Your task to perform on an android device: Empty the shopping cart on target. Add "dell xps" to the cart on target Image 0: 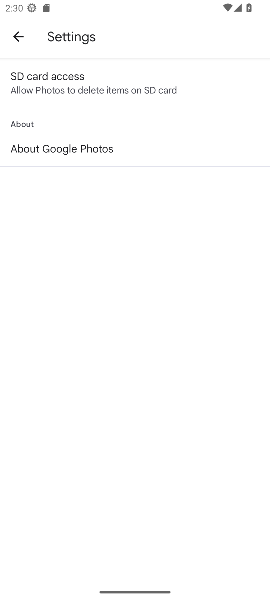
Step 0: click (9, 36)
Your task to perform on an android device: Empty the shopping cart on target. Add "dell xps" to the cart on target Image 1: 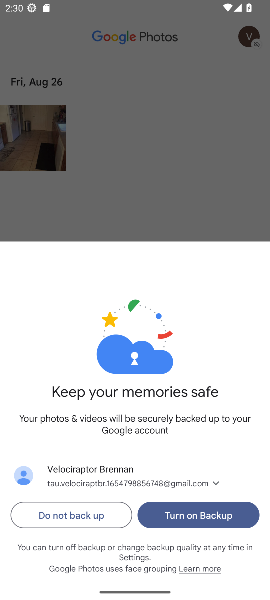
Step 1: click (81, 519)
Your task to perform on an android device: Empty the shopping cart on target. Add "dell xps" to the cart on target Image 2: 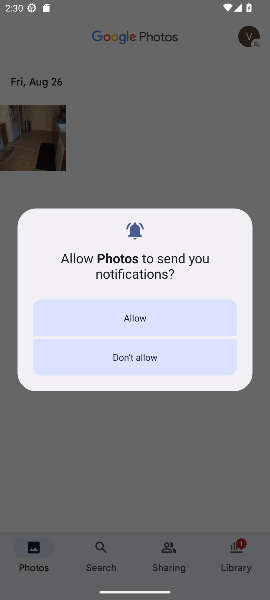
Step 2: press home button
Your task to perform on an android device: Empty the shopping cart on target. Add "dell xps" to the cart on target Image 3: 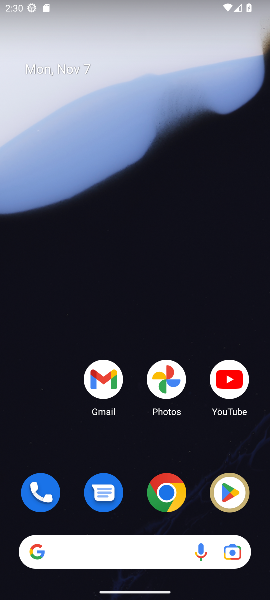
Step 3: click (171, 497)
Your task to perform on an android device: Empty the shopping cart on target. Add "dell xps" to the cart on target Image 4: 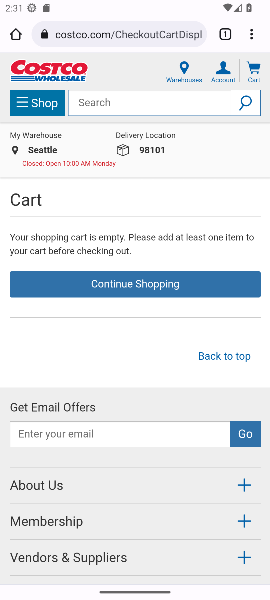
Step 4: click (140, 33)
Your task to perform on an android device: Empty the shopping cart on target. Add "dell xps" to the cart on target Image 5: 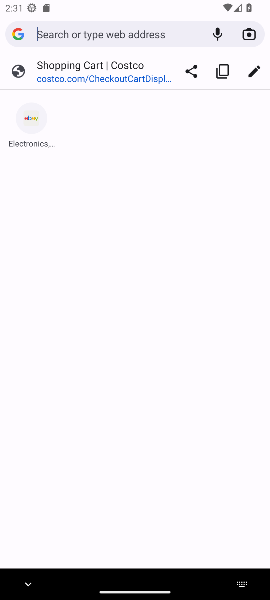
Step 5: type "target"
Your task to perform on an android device: Empty the shopping cart on target. Add "dell xps" to the cart on target Image 6: 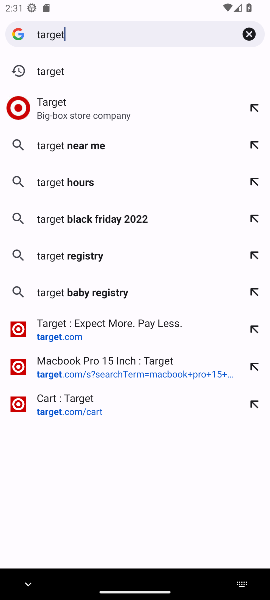
Step 6: click (86, 115)
Your task to perform on an android device: Empty the shopping cart on target. Add "dell xps" to the cart on target Image 7: 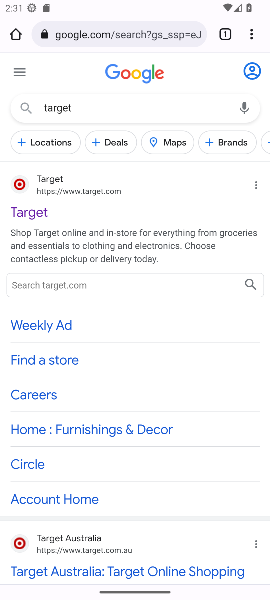
Step 7: click (28, 211)
Your task to perform on an android device: Empty the shopping cart on target. Add "dell xps" to the cart on target Image 8: 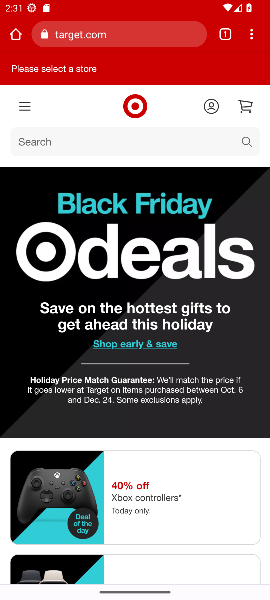
Step 8: click (86, 139)
Your task to perform on an android device: Empty the shopping cart on target. Add "dell xps" to the cart on target Image 9: 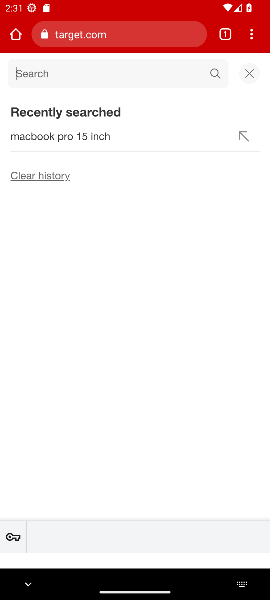
Step 9: type "dell xps"
Your task to perform on an android device: Empty the shopping cart on target. Add "dell xps" to the cart on target Image 10: 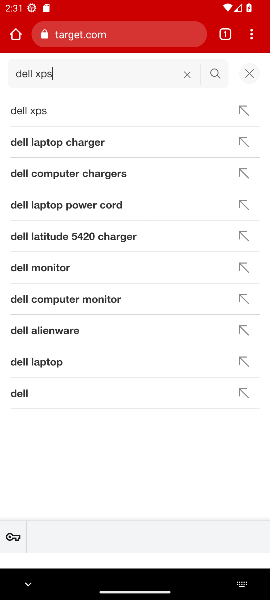
Step 10: click (36, 110)
Your task to perform on an android device: Empty the shopping cart on target. Add "dell xps" to the cart on target Image 11: 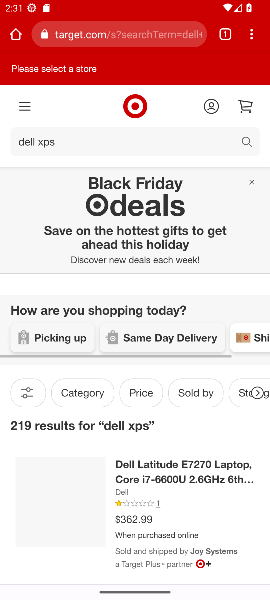
Step 11: drag from (205, 431) to (175, 437)
Your task to perform on an android device: Empty the shopping cart on target. Add "dell xps" to the cart on target Image 12: 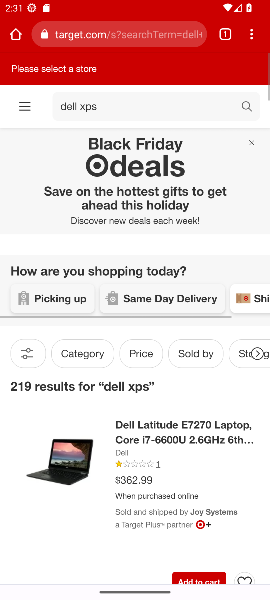
Step 12: drag from (209, 248) to (205, 343)
Your task to perform on an android device: Empty the shopping cart on target. Add "dell xps" to the cart on target Image 13: 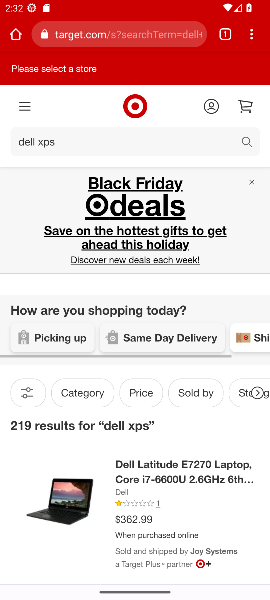
Step 13: click (247, 106)
Your task to perform on an android device: Empty the shopping cart on target. Add "dell xps" to the cart on target Image 14: 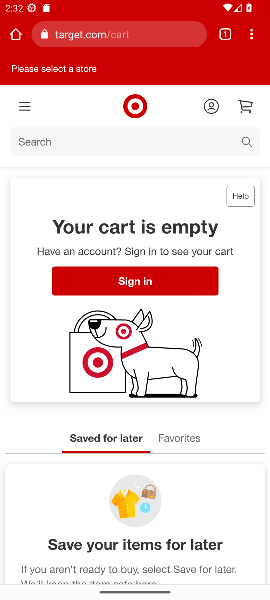
Step 14: press back button
Your task to perform on an android device: Empty the shopping cart on target. Add "dell xps" to the cart on target Image 15: 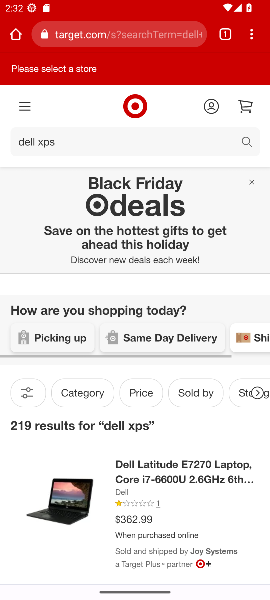
Step 15: drag from (203, 310) to (166, 71)
Your task to perform on an android device: Empty the shopping cart on target. Add "dell xps" to the cart on target Image 16: 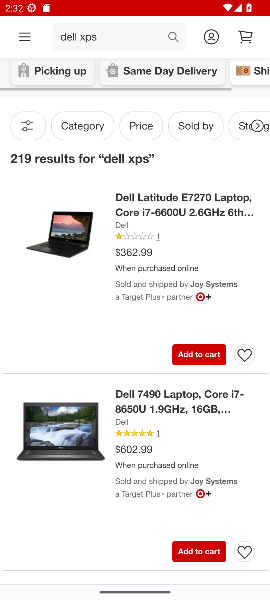
Step 16: drag from (138, 537) to (63, 39)
Your task to perform on an android device: Empty the shopping cart on target. Add "dell xps" to the cart on target Image 17: 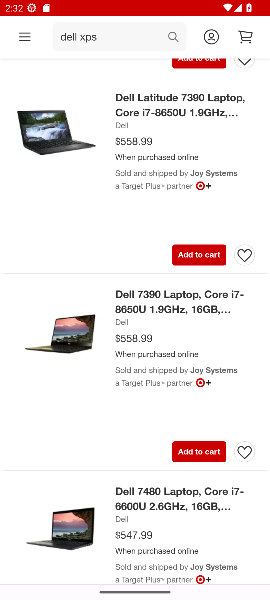
Step 17: drag from (141, 469) to (102, 212)
Your task to perform on an android device: Empty the shopping cart on target. Add "dell xps" to the cart on target Image 18: 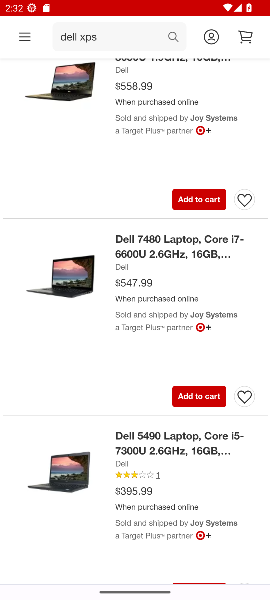
Step 18: drag from (148, 415) to (162, 536)
Your task to perform on an android device: Empty the shopping cart on target. Add "dell xps" to the cart on target Image 19: 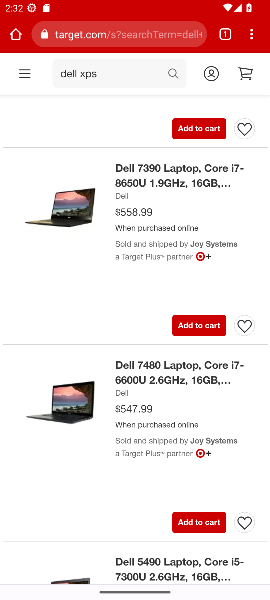
Step 19: drag from (126, 314) to (134, 598)
Your task to perform on an android device: Empty the shopping cart on target. Add "dell xps" to the cart on target Image 20: 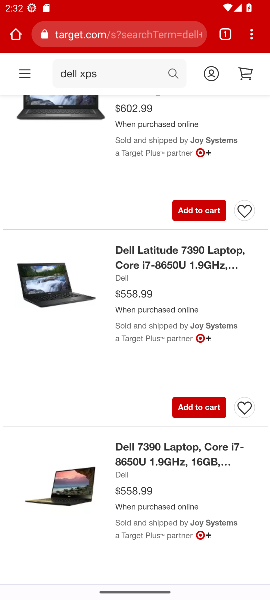
Step 20: drag from (137, 209) to (141, 558)
Your task to perform on an android device: Empty the shopping cart on target. Add "dell xps" to the cart on target Image 21: 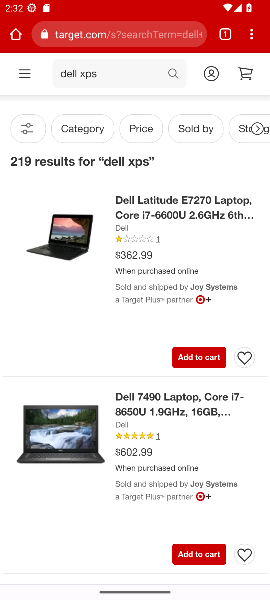
Step 21: click (200, 214)
Your task to perform on an android device: Empty the shopping cart on target. Add "dell xps" to the cart on target Image 22: 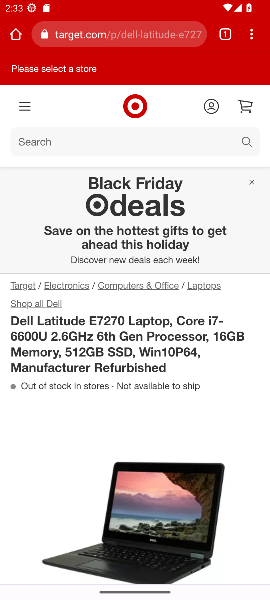
Step 22: task complete